Your task to perform on an android device: Open Google Maps Image 0: 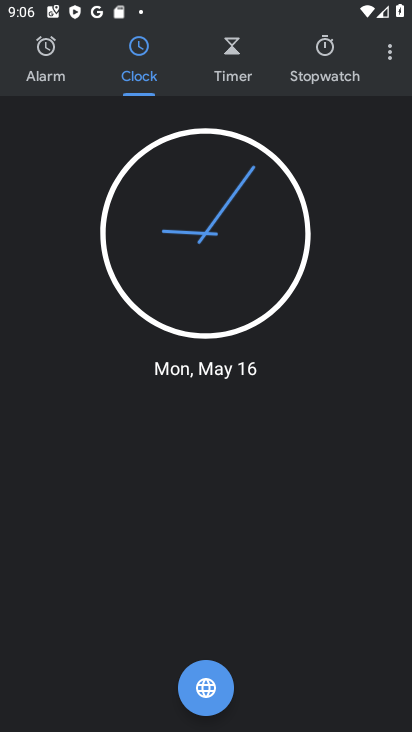
Step 0: press home button
Your task to perform on an android device: Open Google Maps Image 1: 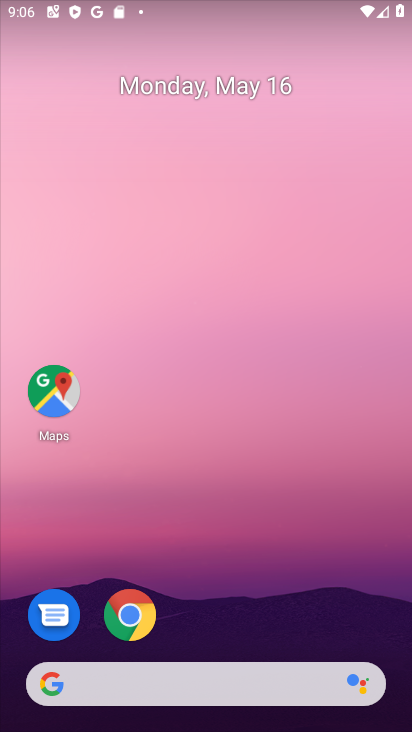
Step 1: click (60, 380)
Your task to perform on an android device: Open Google Maps Image 2: 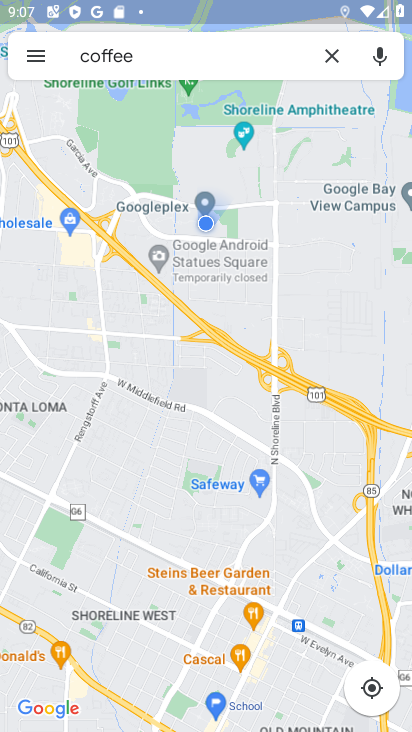
Step 2: click (334, 63)
Your task to perform on an android device: Open Google Maps Image 3: 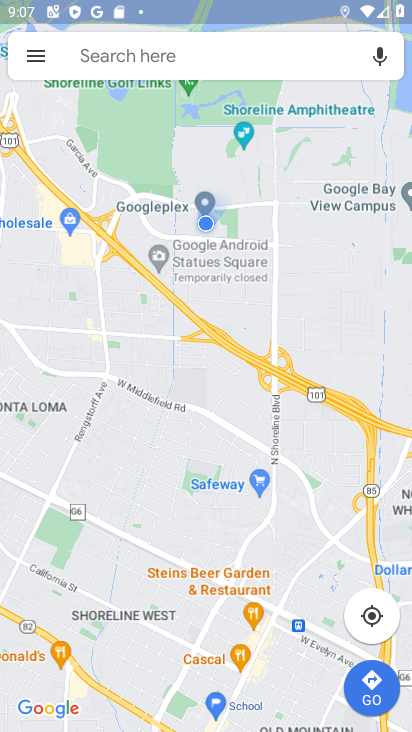
Step 3: task complete